Your task to perform on an android device: turn off improve location accuracy Image 0: 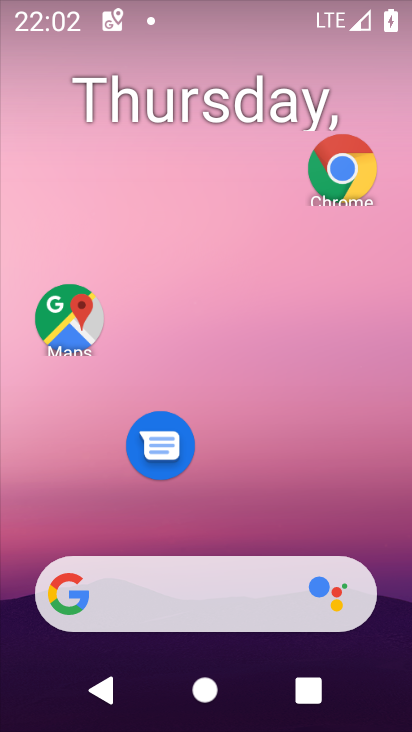
Step 0: drag from (251, 519) to (264, 223)
Your task to perform on an android device: turn off improve location accuracy Image 1: 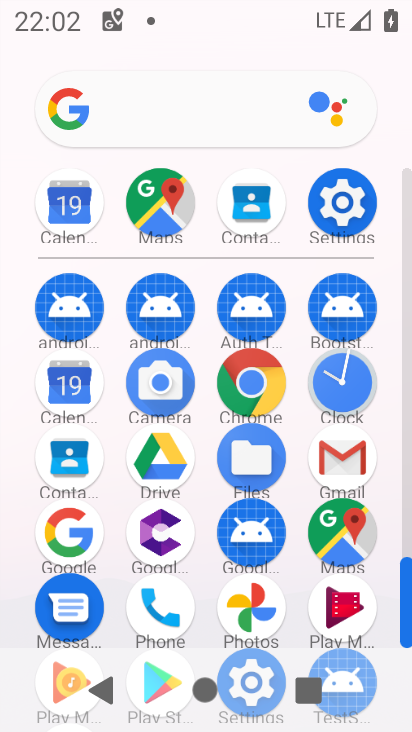
Step 1: click (339, 202)
Your task to perform on an android device: turn off improve location accuracy Image 2: 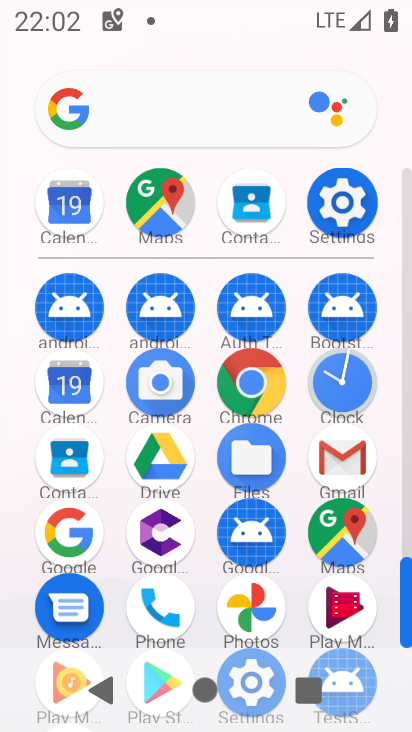
Step 2: click (339, 202)
Your task to perform on an android device: turn off improve location accuracy Image 3: 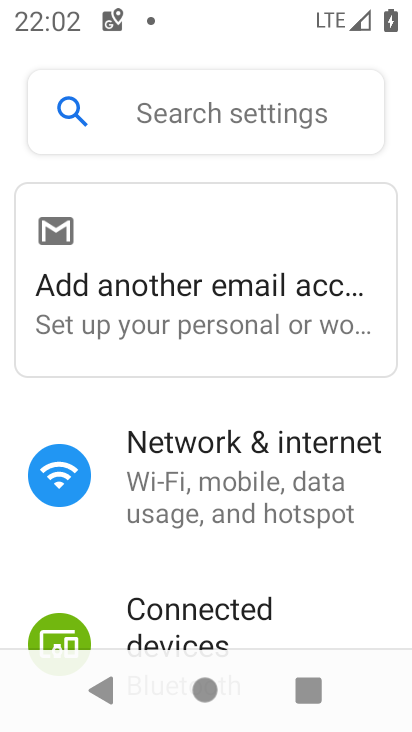
Step 3: drag from (257, 603) to (281, 446)
Your task to perform on an android device: turn off improve location accuracy Image 4: 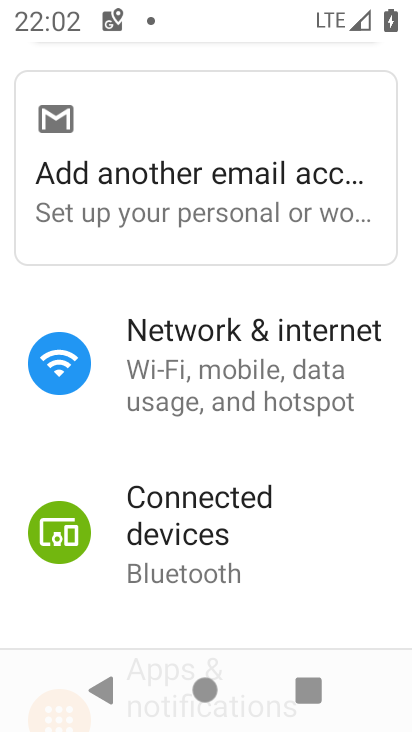
Step 4: drag from (210, 614) to (264, 458)
Your task to perform on an android device: turn off improve location accuracy Image 5: 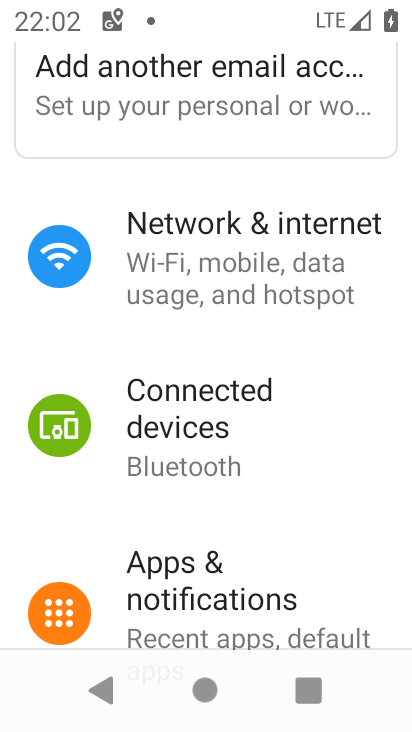
Step 5: drag from (222, 621) to (337, 311)
Your task to perform on an android device: turn off improve location accuracy Image 6: 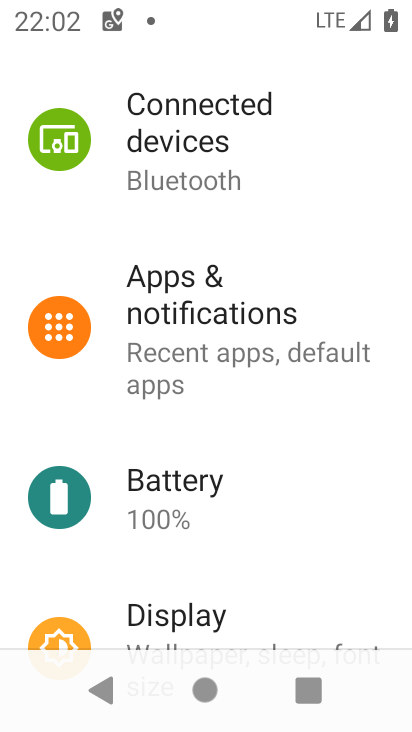
Step 6: drag from (245, 581) to (321, 306)
Your task to perform on an android device: turn off improve location accuracy Image 7: 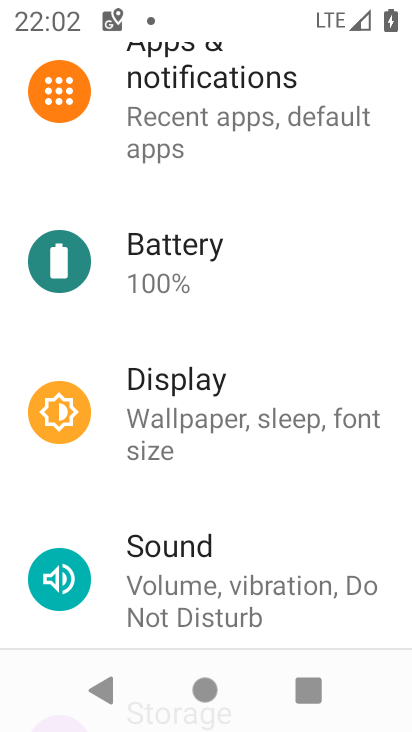
Step 7: drag from (276, 534) to (218, 127)
Your task to perform on an android device: turn off improve location accuracy Image 8: 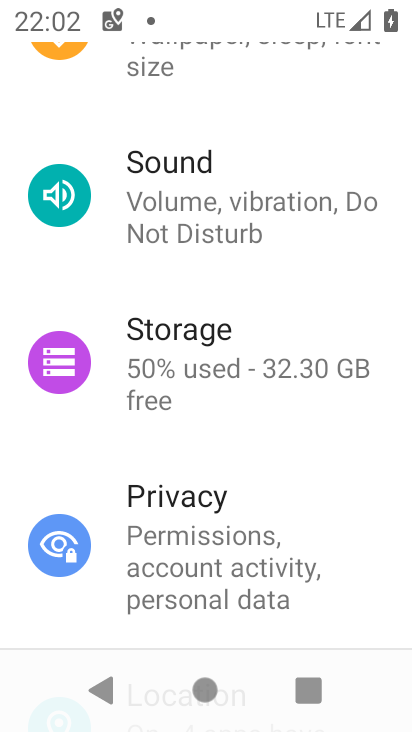
Step 8: drag from (225, 518) to (255, 181)
Your task to perform on an android device: turn off improve location accuracy Image 9: 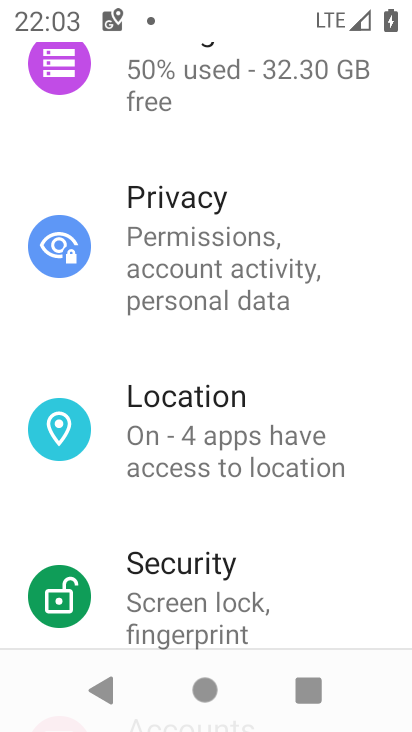
Step 9: click (206, 402)
Your task to perform on an android device: turn off improve location accuracy Image 10: 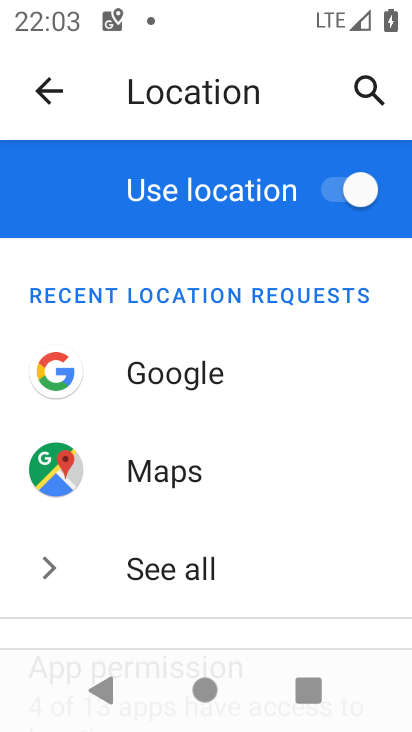
Step 10: drag from (247, 553) to (258, 129)
Your task to perform on an android device: turn off improve location accuracy Image 11: 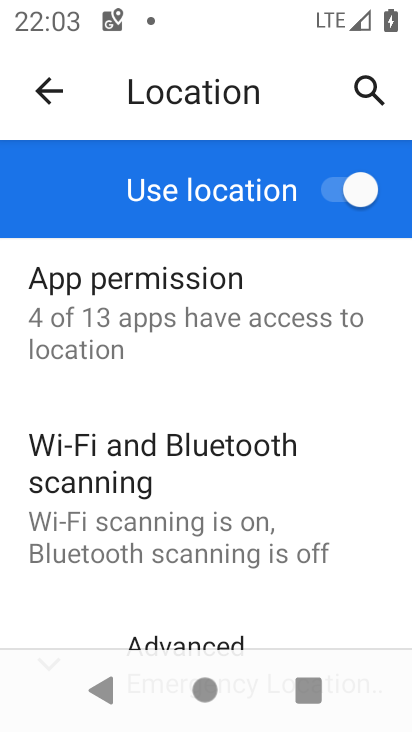
Step 11: drag from (132, 337) to (344, 14)
Your task to perform on an android device: turn off improve location accuracy Image 12: 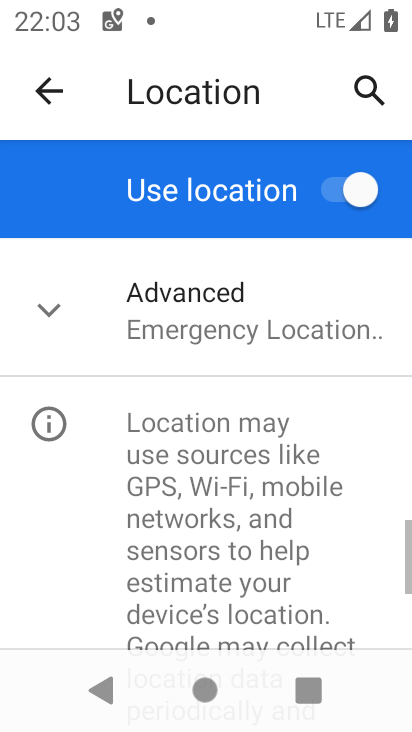
Step 12: click (188, 296)
Your task to perform on an android device: turn off improve location accuracy Image 13: 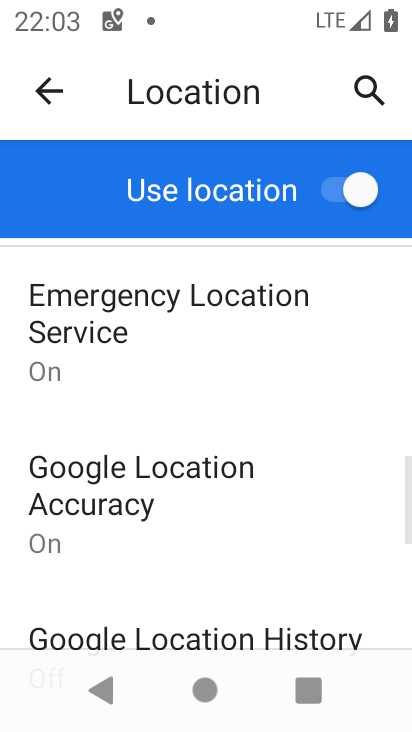
Step 13: click (211, 463)
Your task to perform on an android device: turn off improve location accuracy Image 14: 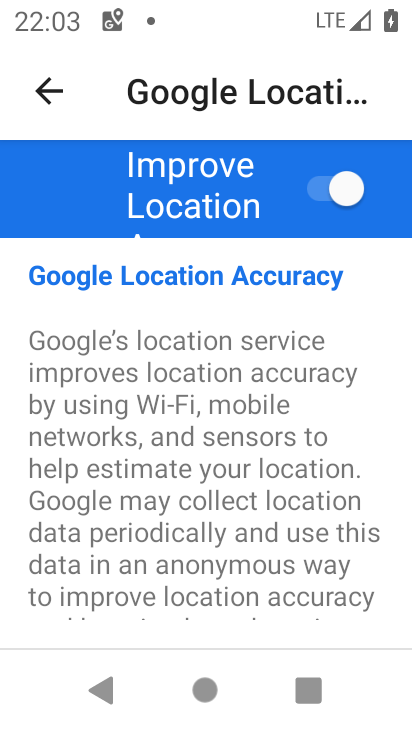
Step 14: click (339, 193)
Your task to perform on an android device: turn off improve location accuracy Image 15: 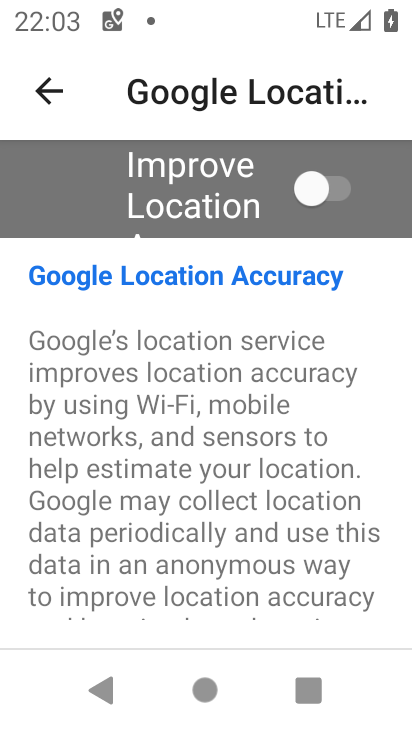
Step 15: task complete